Your task to perform on an android device: toggle improve location accuracy Image 0: 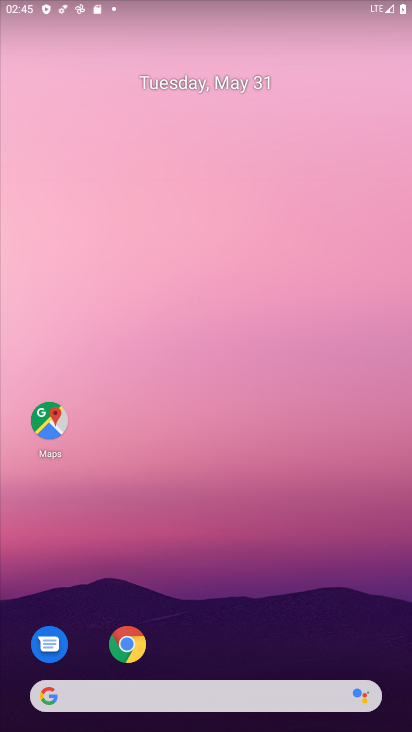
Step 0: drag from (260, 630) to (265, 197)
Your task to perform on an android device: toggle improve location accuracy Image 1: 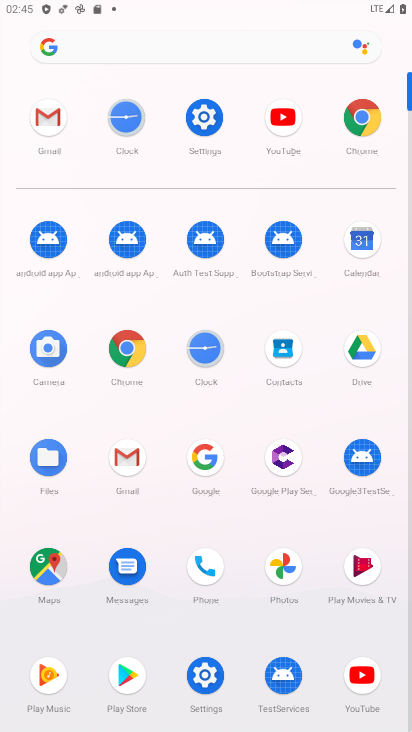
Step 1: click (198, 130)
Your task to perform on an android device: toggle improve location accuracy Image 2: 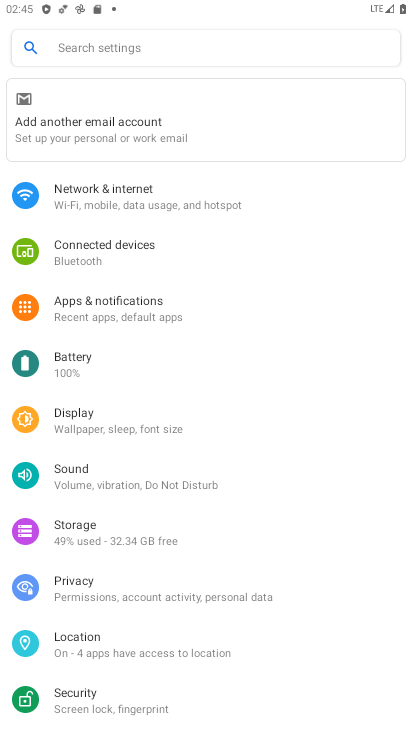
Step 2: click (130, 631)
Your task to perform on an android device: toggle improve location accuracy Image 3: 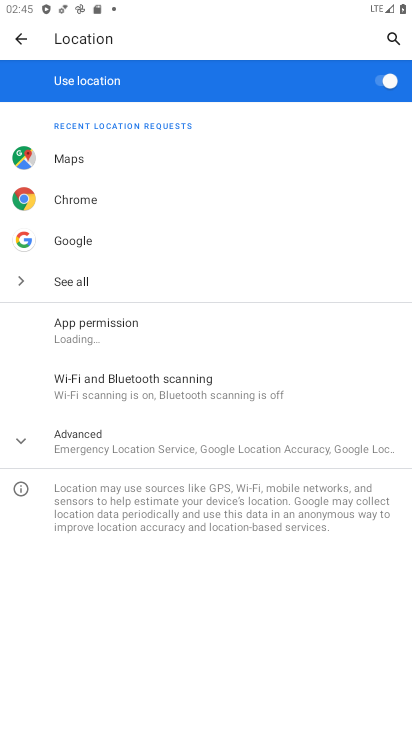
Step 3: click (114, 449)
Your task to perform on an android device: toggle improve location accuracy Image 4: 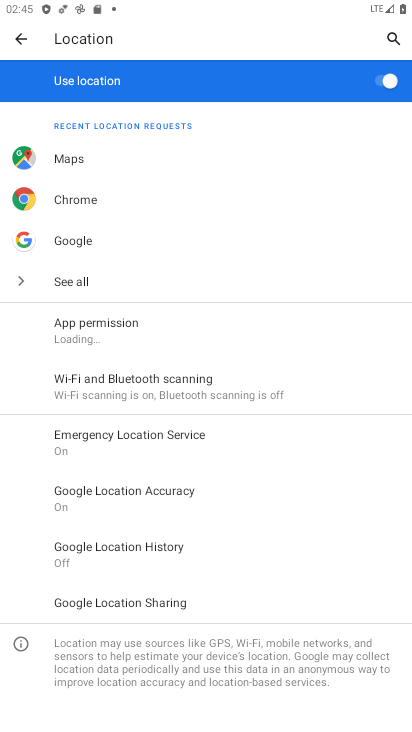
Step 4: click (159, 498)
Your task to perform on an android device: toggle improve location accuracy Image 5: 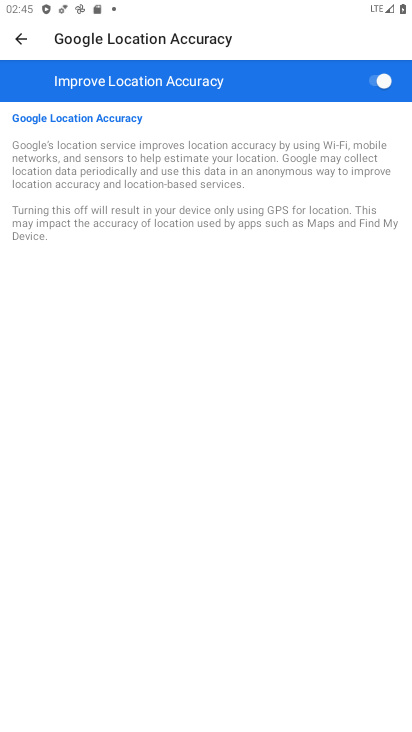
Step 5: click (370, 74)
Your task to perform on an android device: toggle improve location accuracy Image 6: 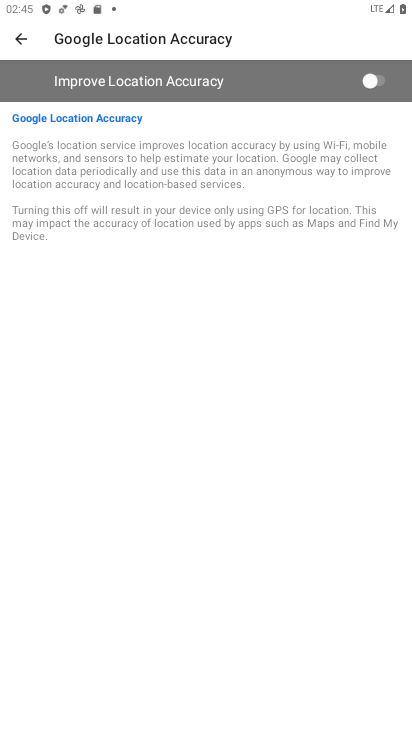
Step 6: task complete